Your task to perform on an android device: make emails show in primary in the gmail app Image 0: 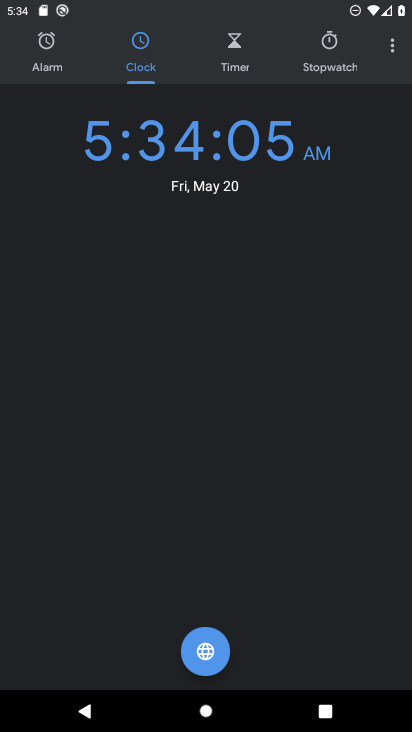
Step 0: press home button
Your task to perform on an android device: make emails show in primary in the gmail app Image 1: 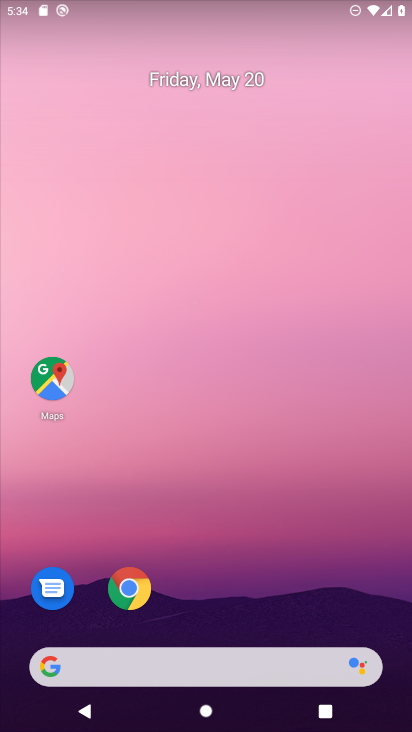
Step 1: drag from (240, 591) to (227, 58)
Your task to perform on an android device: make emails show in primary in the gmail app Image 2: 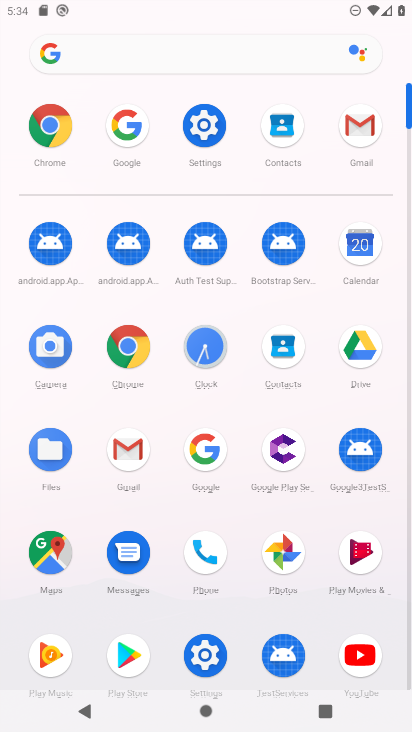
Step 2: click (360, 148)
Your task to perform on an android device: make emails show in primary in the gmail app Image 3: 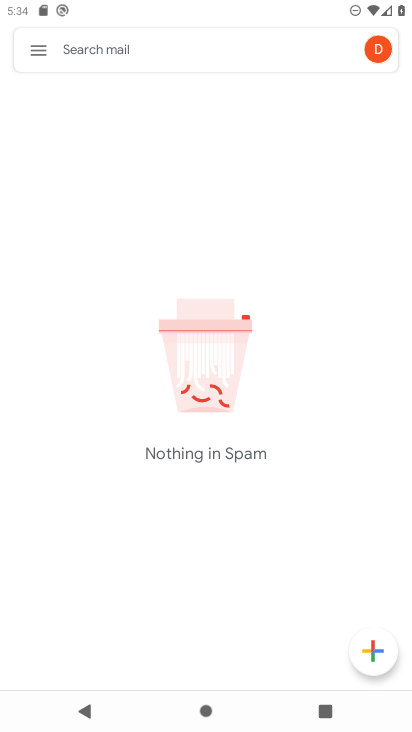
Step 3: press home button
Your task to perform on an android device: make emails show in primary in the gmail app Image 4: 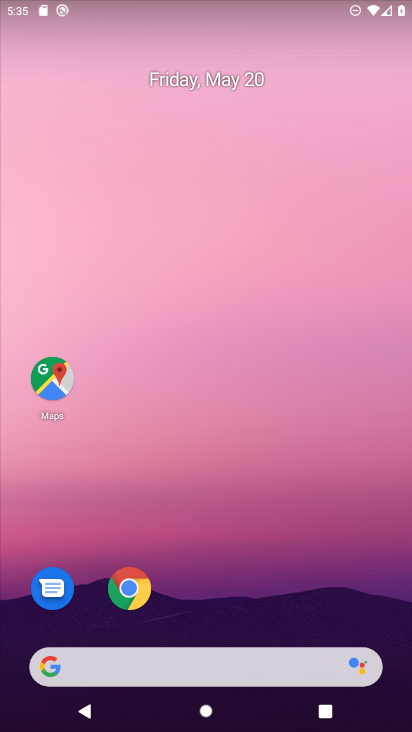
Step 4: drag from (210, 588) to (185, 134)
Your task to perform on an android device: make emails show in primary in the gmail app Image 5: 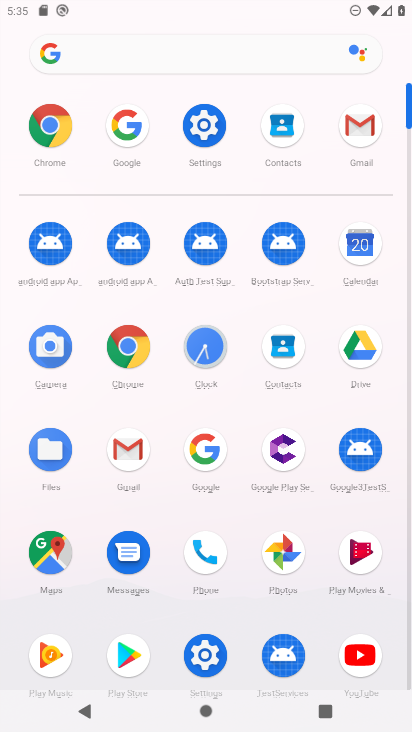
Step 5: click (352, 150)
Your task to perform on an android device: make emails show in primary in the gmail app Image 6: 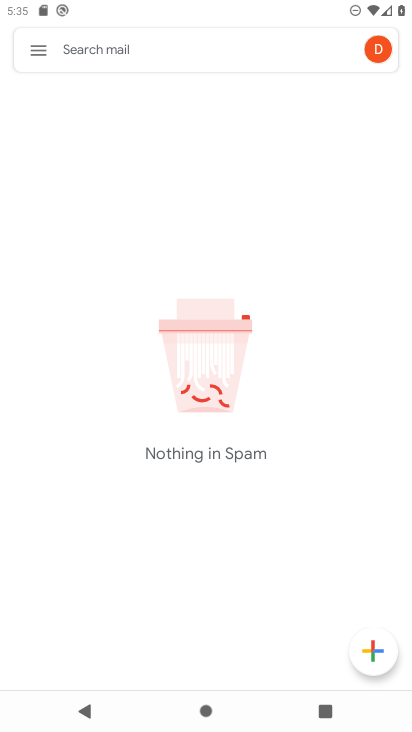
Step 6: click (34, 45)
Your task to perform on an android device: make emails show in primary in the gmail app Image 7: 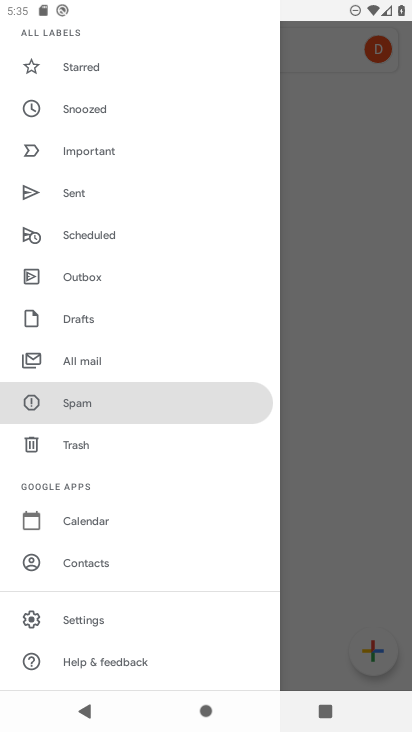
Step 7: drag from (116, 136) to (87, 360)
Your task to perform on an android device: make emails show in primary in the gmail app Image 8: 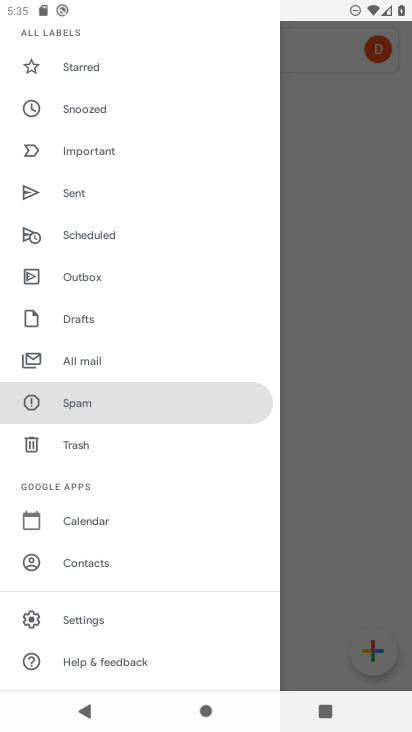
Step 8: click (74, 619)
Your task to perform on an android device: make emails show in primary in the gmail app Image 9: 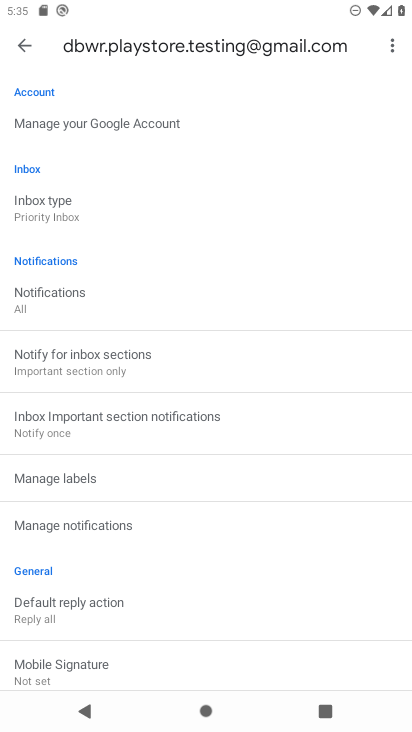
Step 9: task complete